Your task to perform on an android device: find which apps use the phone's location Image 0: 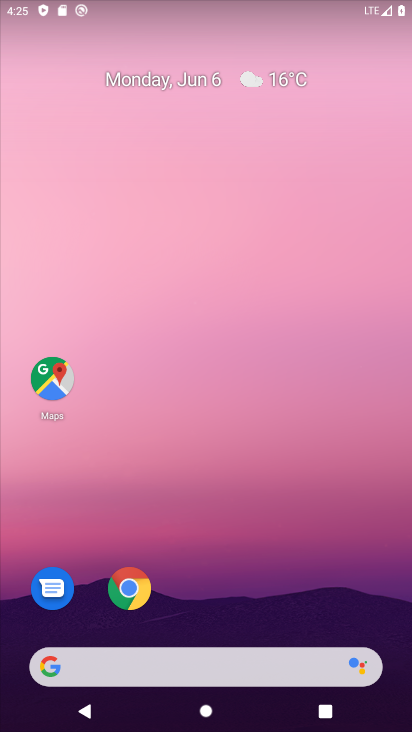
Step 0: drag from (111, 184) to (103, 125)
Your task to perform on an android device: find which apps use the phone's location Image 1: 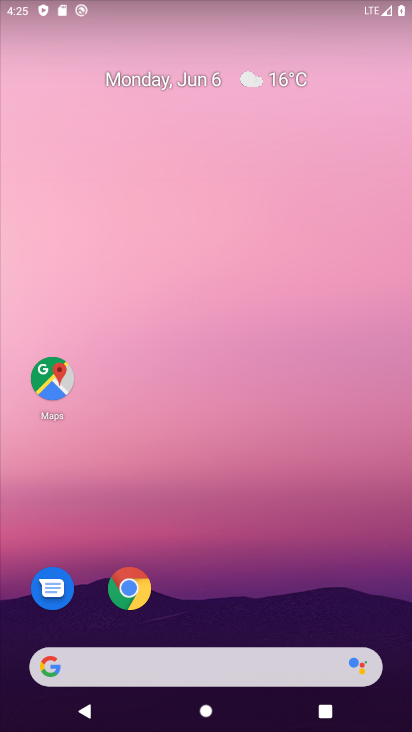
Step 1: drag from (273, 703) to (200, 107)
Your task to perform on an android device: find which apps use the phone's location Image 2: 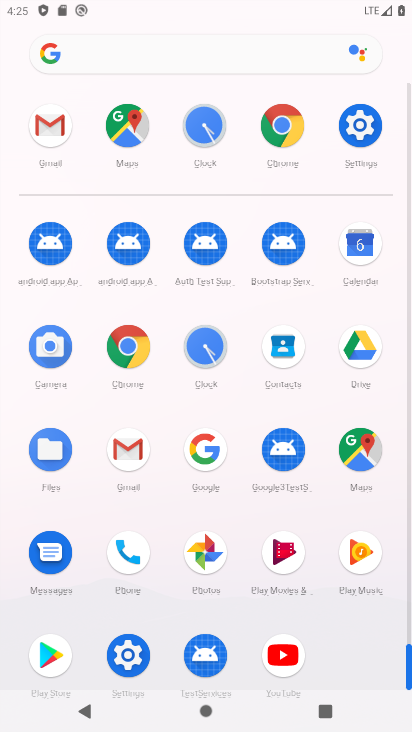
Step 2: drag from (194, 602) to (148, 175)
Your task to perform on an android device: find which apps use the phone's location Image 3: 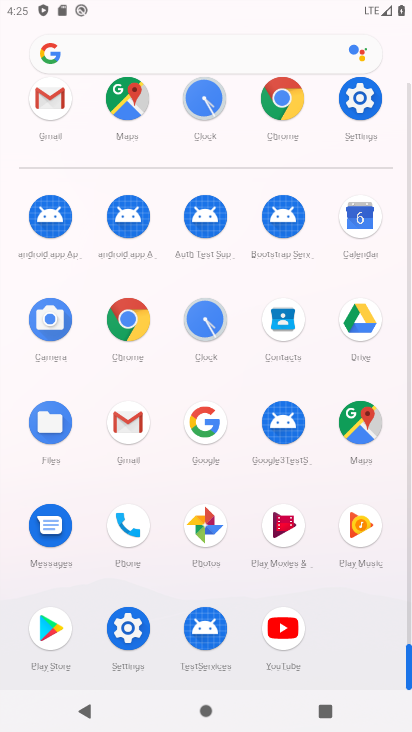
Step 3: click (117, 625)
Your task to perform on an android device: find which apps use the phone's location Image 4: 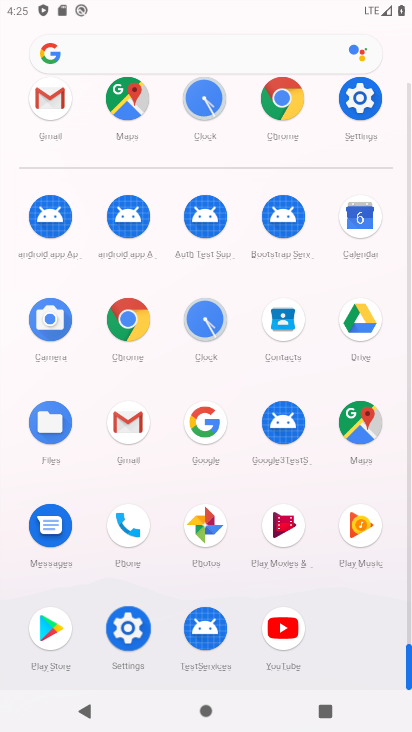
Step 4: click (118, 624)
Your task to perform on an android device: find which apps use the phone's location Image 5: 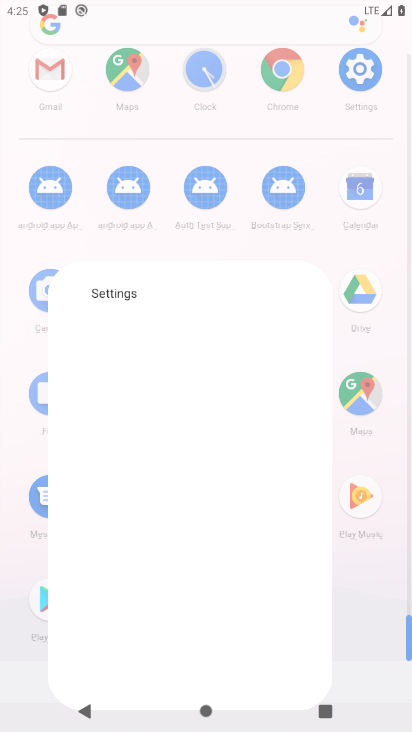
Step 5: click (118, 624)
Your task to perform on an android device: find which apps use the phone's location Image 6: 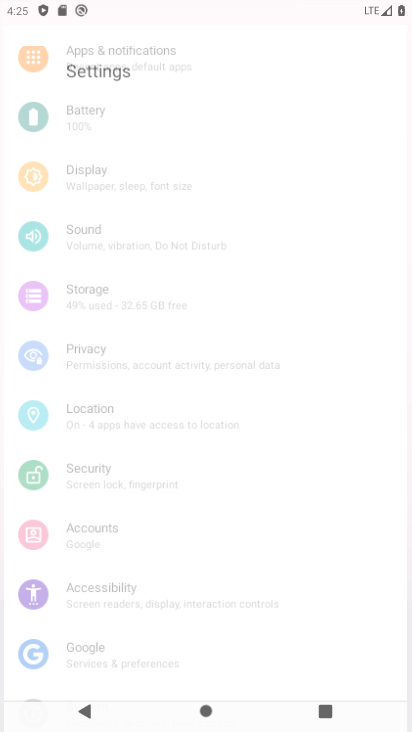
Step 6: click (118, 624)
Your task to perform on an android device: find which apps use the phone's location Image 7: 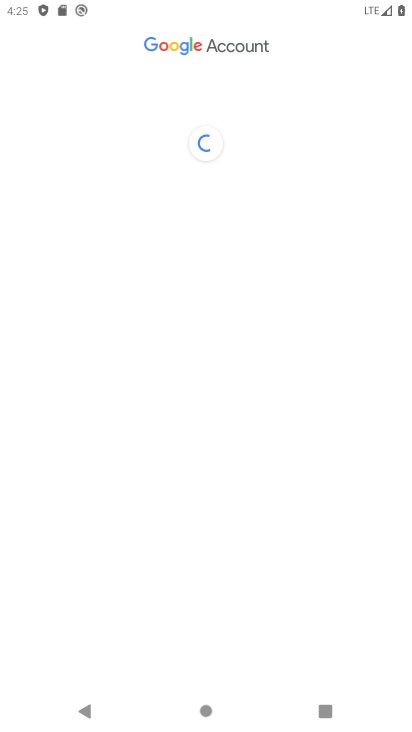
Step 7: drag from (101, 635) to (62, 190)
Your task to perform on an android device: find which apps use the phone's location Image 8: 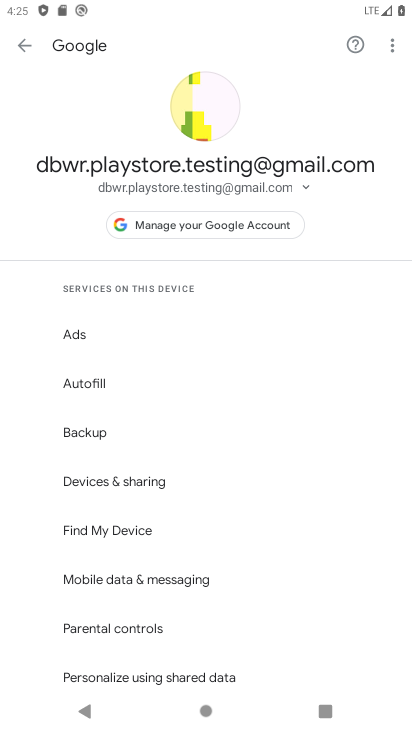
Step 8: press back button
Your task to perform on an android device: find which apps use the phone's location Image 9: 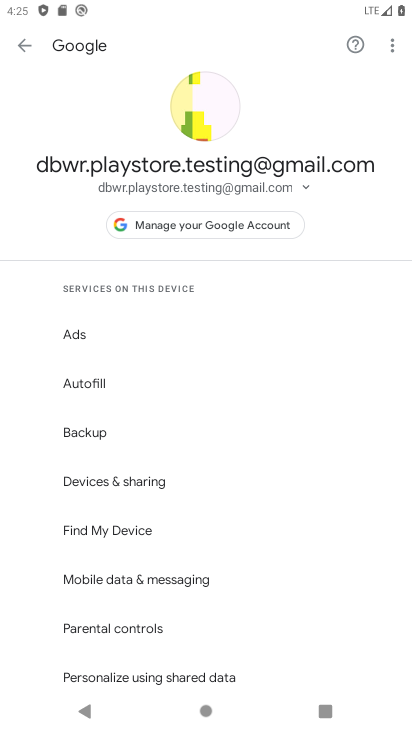
Step 9: click (13, 42)
Your task to perform on an android device: find which apps use the phone's location Image 10: 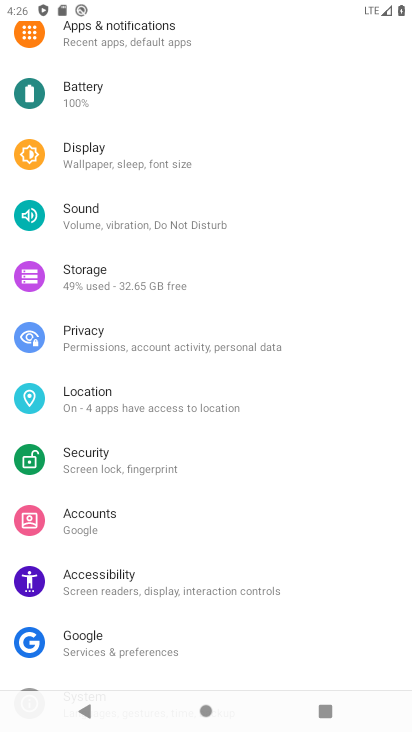
Step 10: drag from (121, 552) to (95, 72)
Your task to perform on an android device: find which apps use the phone's location Image 11: 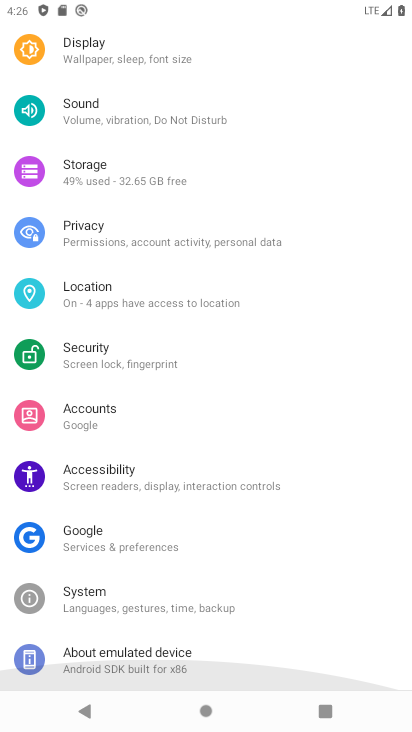
Step 11: drag from (184, 512) to (160, 136)
Your task to perform on an android device: find which apps use the phone's location Image 12: 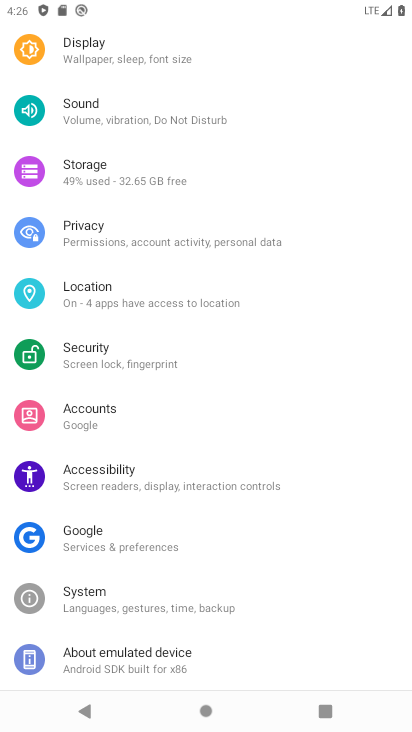
Step 12: click (95, 285)
Your task to perform on an android device: find which apps use the phone's location Image 13: 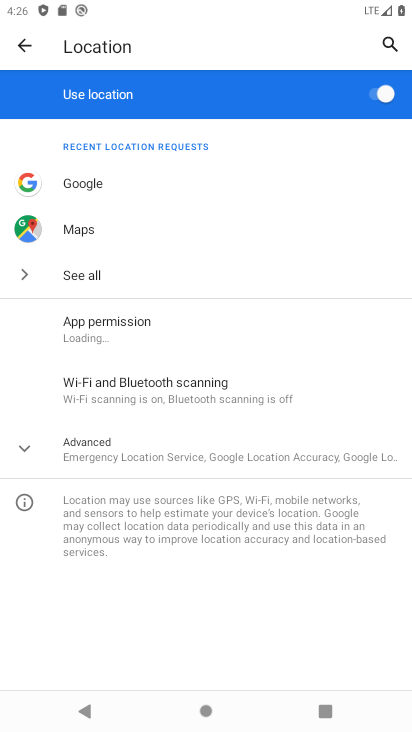
Step 13: click (69, 321)
Your task to perform on an android device: find which apps use the phone's location Image 14: 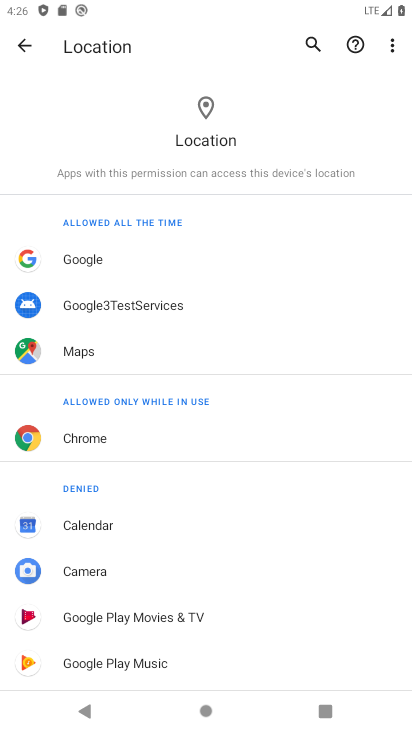
Step 14: task complete